Your task to perform on an android device: turn on javascript in the chrome app Image 0: 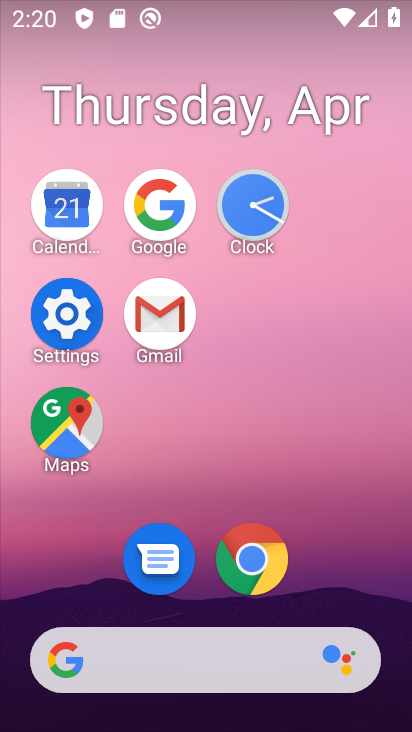
Step 0: click (249, 555)
Your task to perform on an android device: turn on javascript in the chrome app Image 1: 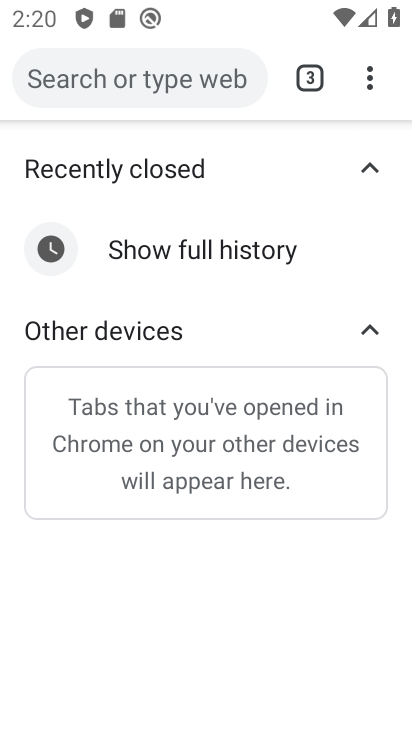
Step 1: click (369, 72)
Your task to perform on an android device: turn on javascript in the chrome app Image 2: 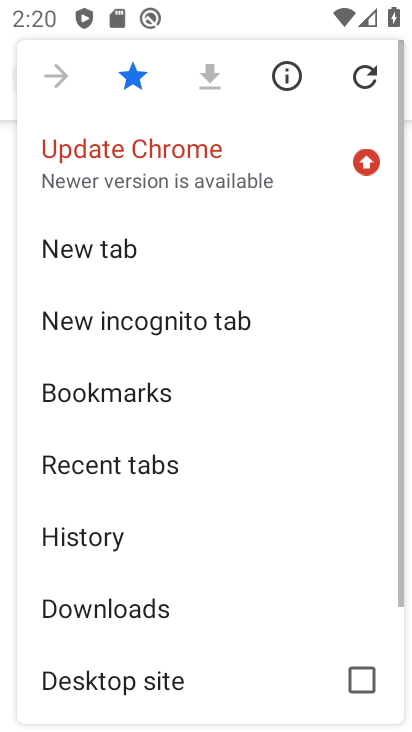
Step 2: drag from (234, 462) to (275, 103)
Your task to perform on an android device: turn on javascript in the chrome app Image 3: 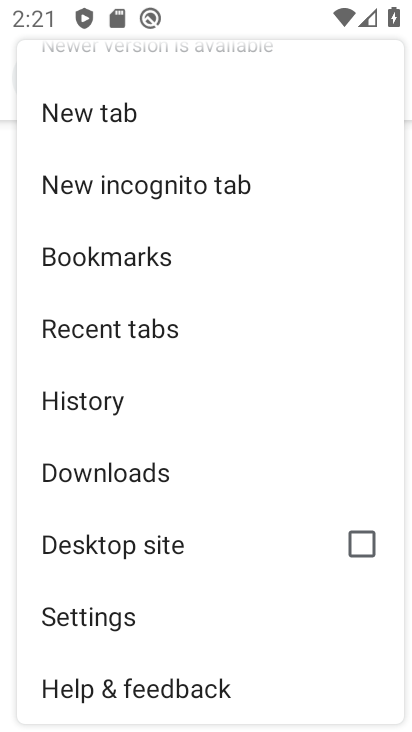
Step 3: click (157, 619)
Your task to perform on an android device: turn on javascript in the chrome app Image 4: 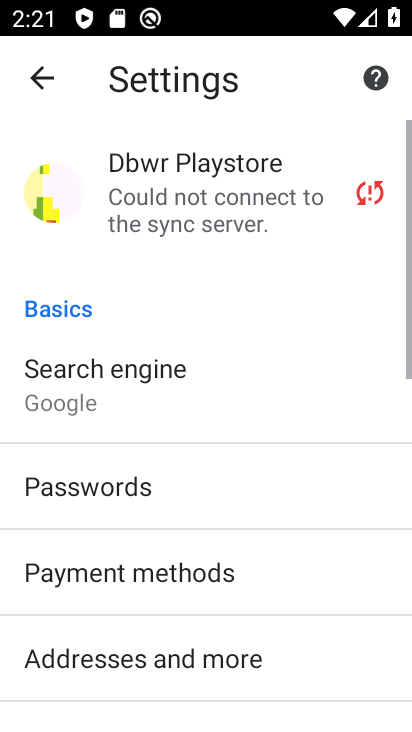
Step 4: drag from (157, 619) to (232, 118)
Your task to perform on an android device: turn on javascript in the chrome app Image 5: 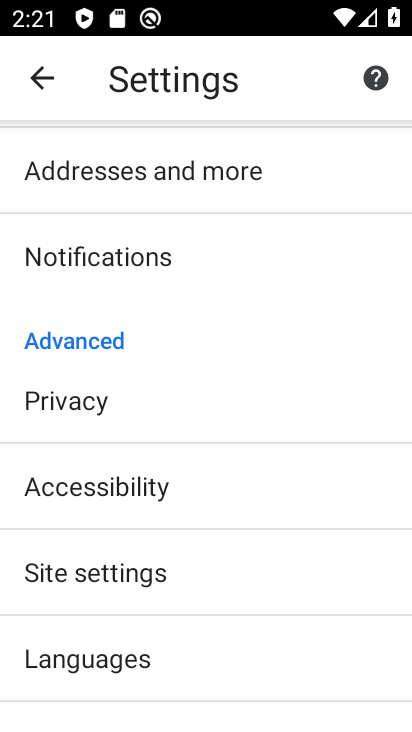
Step 5: click (173, 584)
Your task to perform on an android device: turn on javascript in the chrome app Image 6: 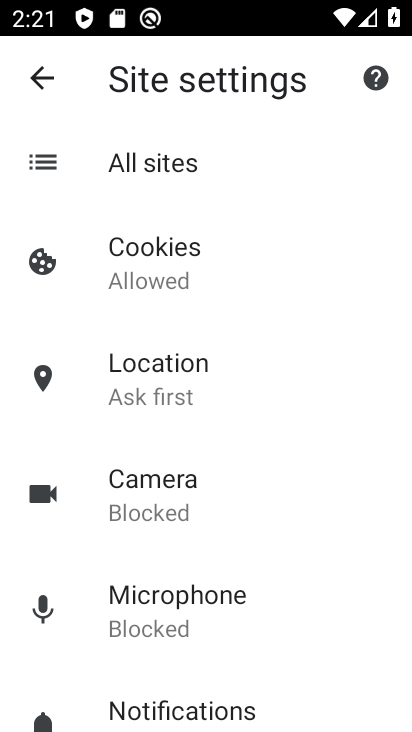
Step 6: drag from (244, 635) to (353, 145)
Your task to perform on an android device: turn on javascript in the chrome app Image 7: 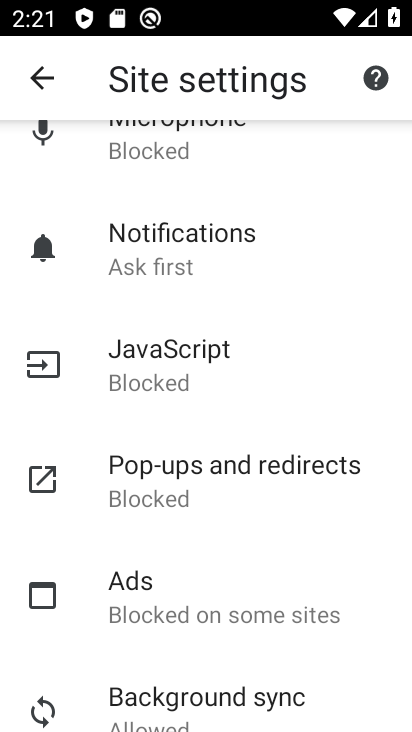
Step 7: click (225, 354)
Your task to perform on an android device: turn on javascript in the chrome app Image 8: 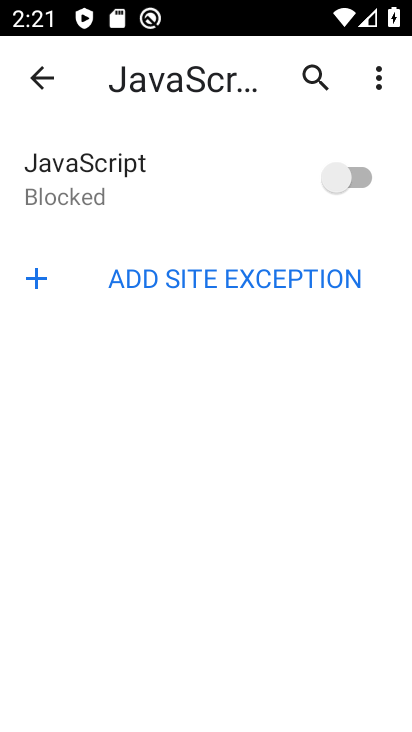
Step 8: click (356, 179)
Your task to perform on an android device: turn on javascript in the chrome app Image 9: 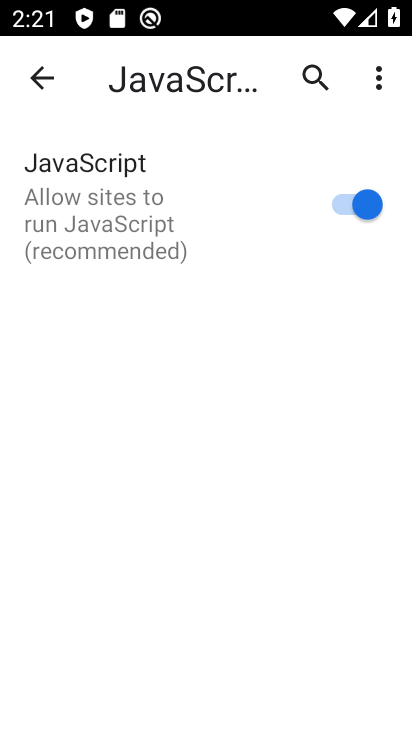
Step 9: task complete